Your task to perform on an android device: Search for sushi restaurants on Maps Image 0: 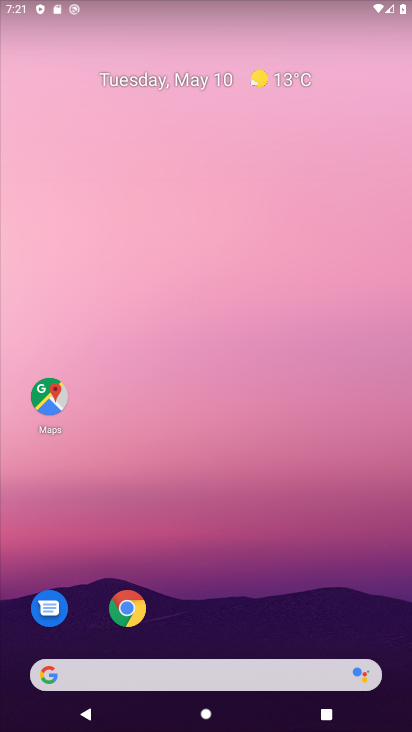
Step 0: click (40, 398)
Your task to perform on an android device: Search for sushi restaurants on Maps Image 1: 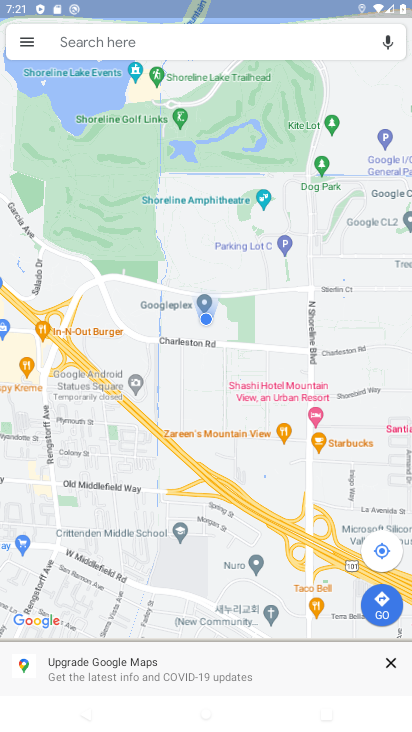
Step 1: click (211, 47)
Your task to perform on an android device: Search for sushi restaurants on Maps Image 2: 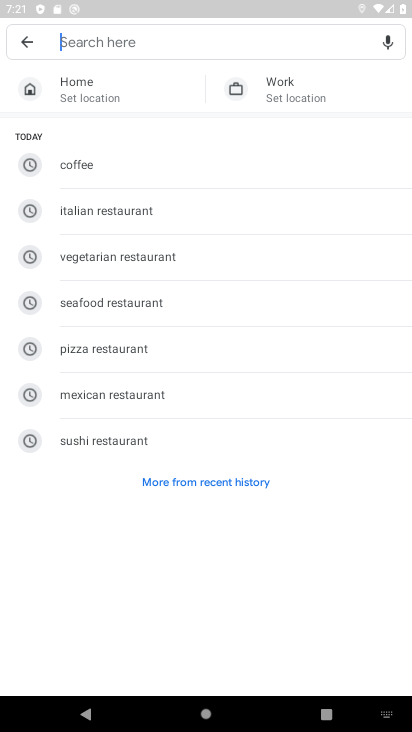
Step 2: click (128, 439)
Your task to perform on an android device: Search for sushi restaurants on Maps Image 3: 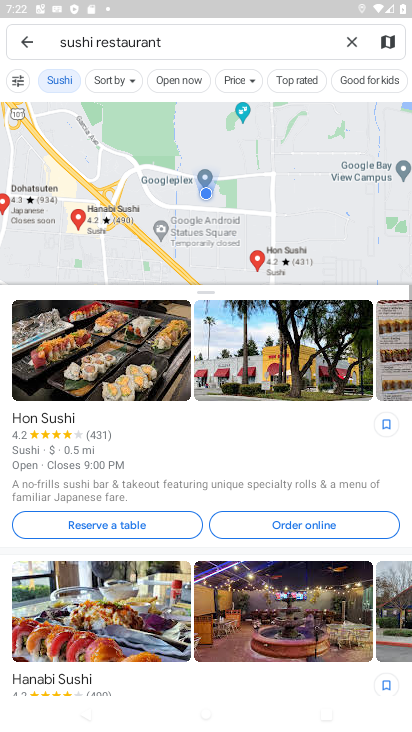
Step 3: task complete